Your task to perform on an android device: open chrome privacy settings Image 0: 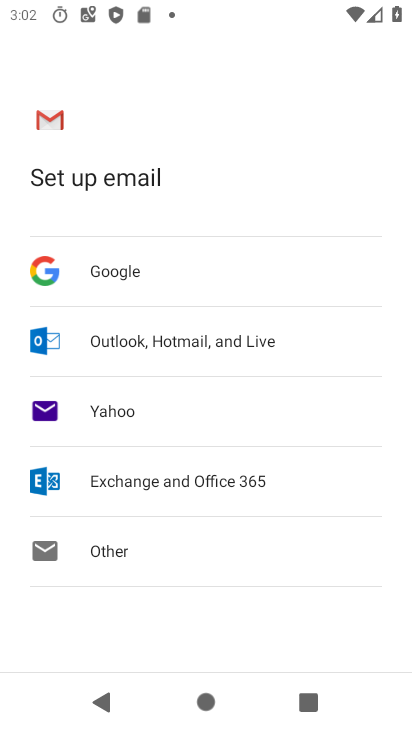
Step 0: press home button
Your task to perform on an android device: open chrome privacy settings Image 1: 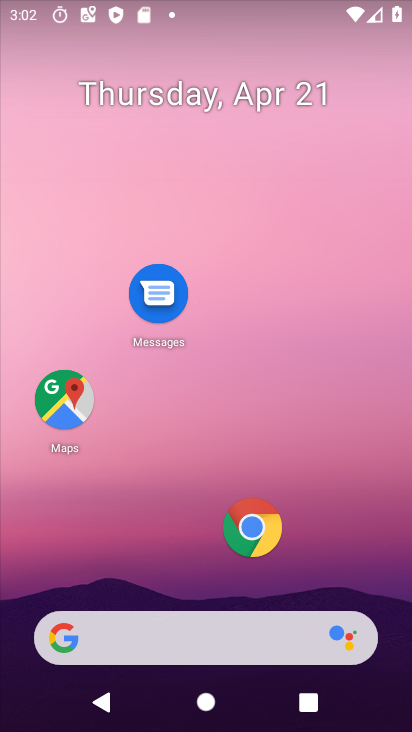
Step 1: click (254, 525)
Your task to perform on an android device: open chrome privacy settings Image 2: 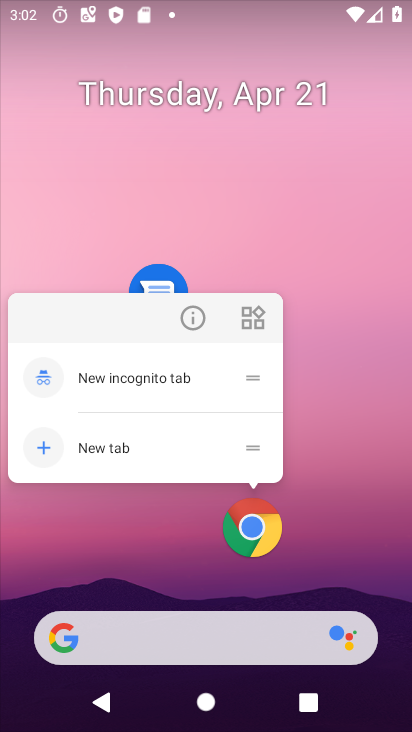
Step 2: click (249, 530)
Your task to perform on an android device: open chrome privacy settings Image 3: 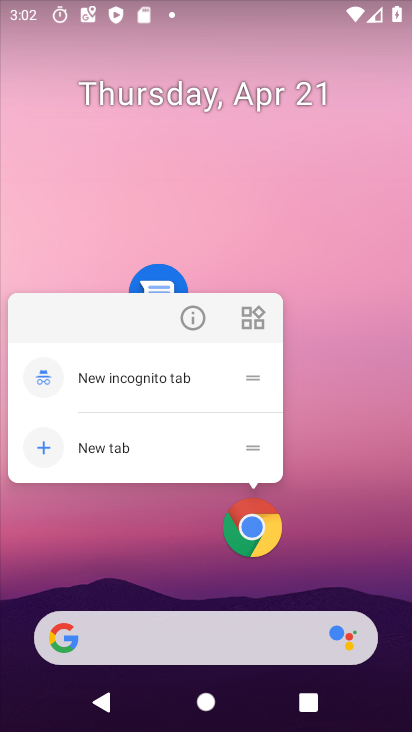
Step 3: click (248, 529)
Your task to perform on an android device: open chrome privacy settings Image 4: 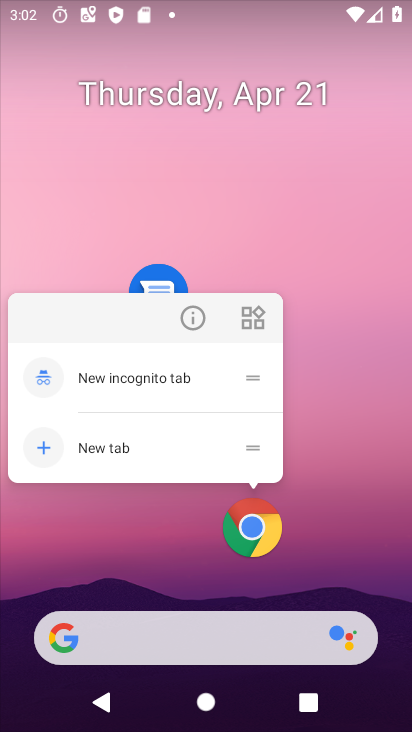
Step 4: click (247, 529)
Your task to perform on an android device: open chrome privacy settings Image 5: 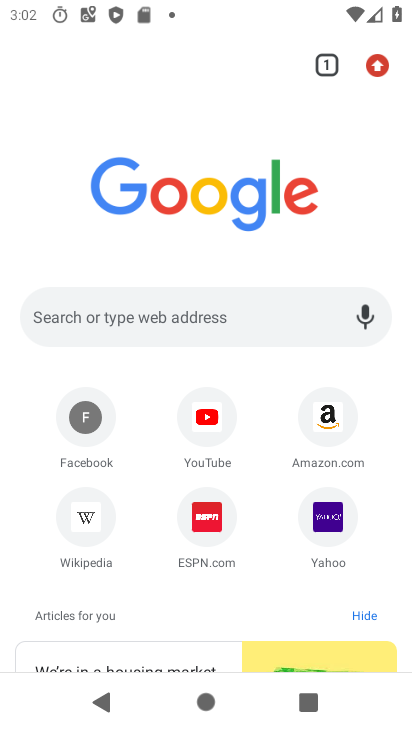
Step 5: click (368, 67)
Your task to perform on an android device: open chrome privacy settings Image 6: 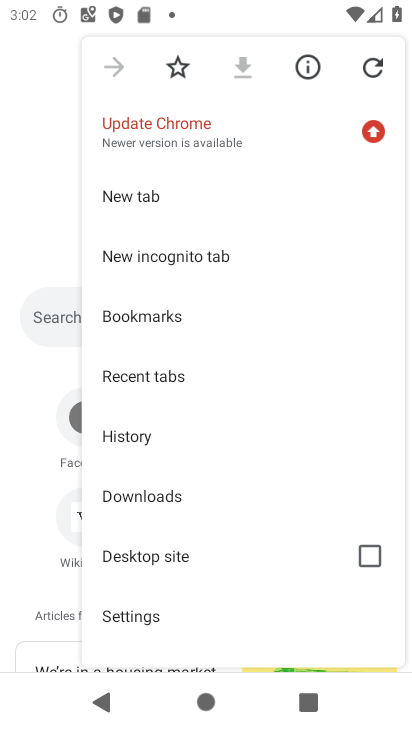
Step 6: click (145, 616)
Your task to perform on an android device: open chrome privacy settings Image 7: 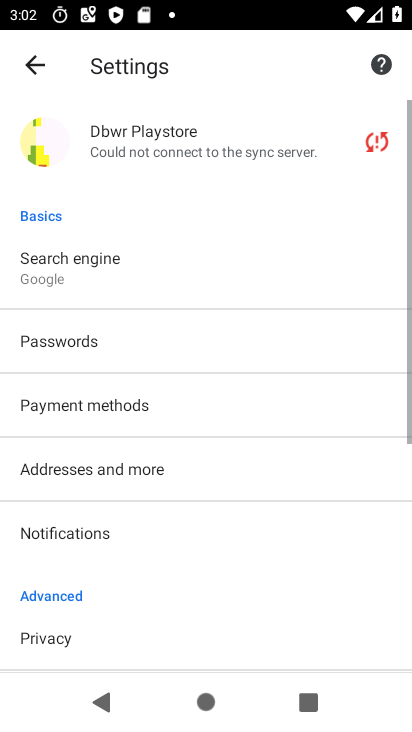
Step 7: drag from (185, 649) to (256, 399)
Your task to perform on an android device: open chrome privacy settings Image 8: 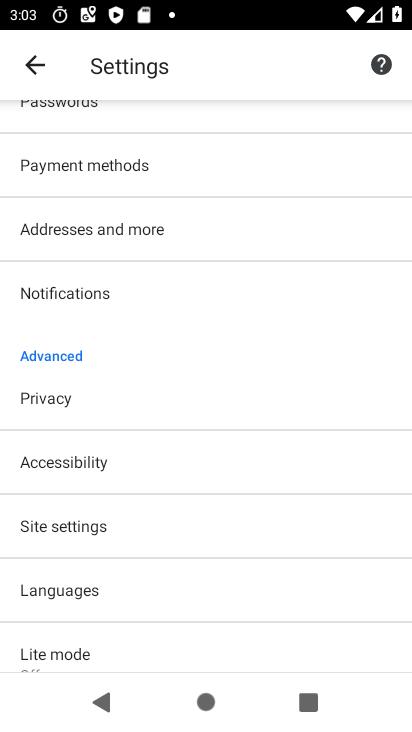
Step 8: click (63, 401)
Your task to perform on an android device: open chrome privacy settings Image 9: 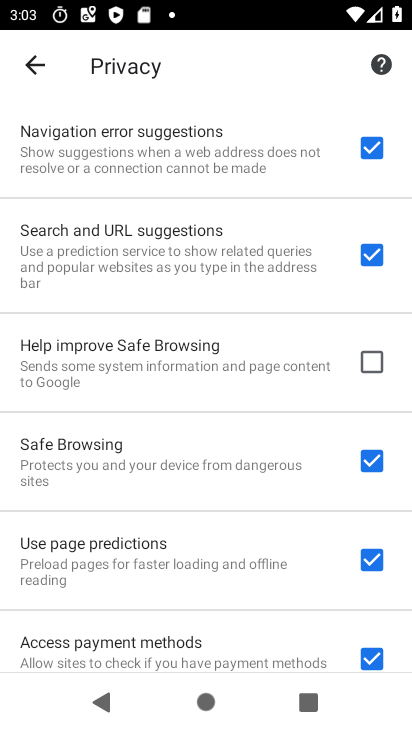
Step 9: task complete